Your task to perform on an android device: Open ESPN.com Image 0: 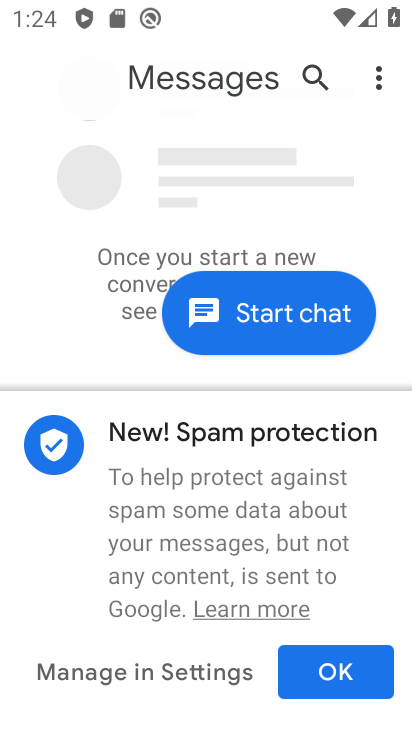
Step 0: press home button
Your task to perform on an android device: Open ESPN.com Image 1: 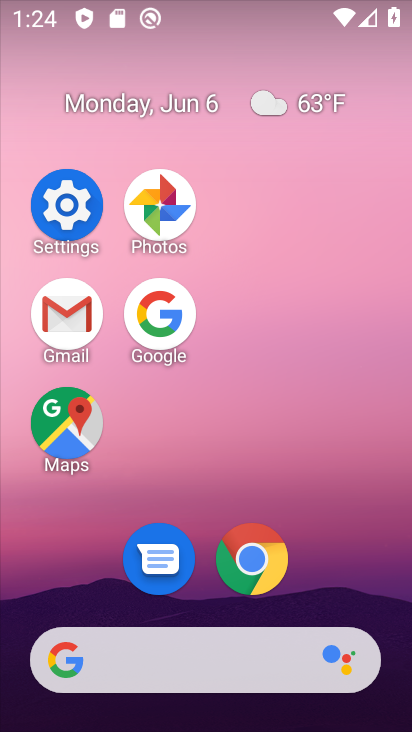
Step 1: click (249, 563)
Your task to perform on an android device: Open ESPN.com Image 2: 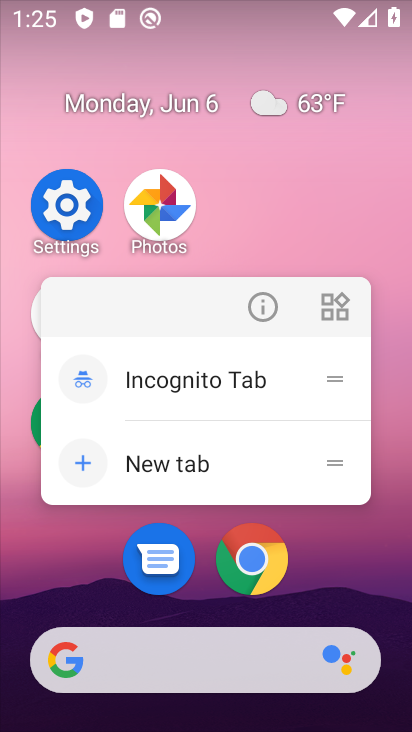
Step 2: click (251, 570)
Your task to perform on an android device: Open ESPN.com Image 3: 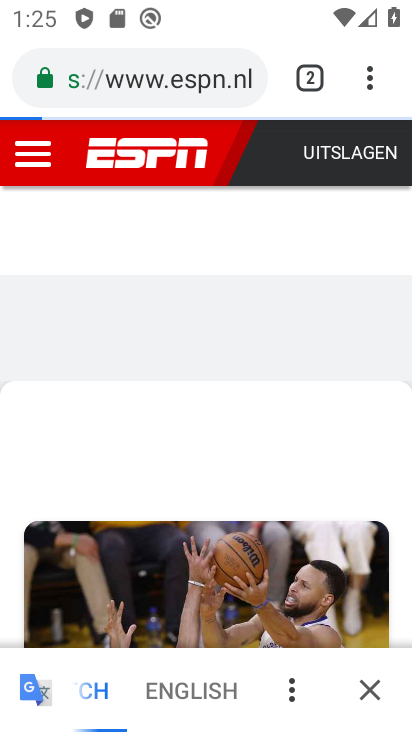
Step 3: task complete